Your task to perform on an android device: Find coffee shops on Maps Image 0: 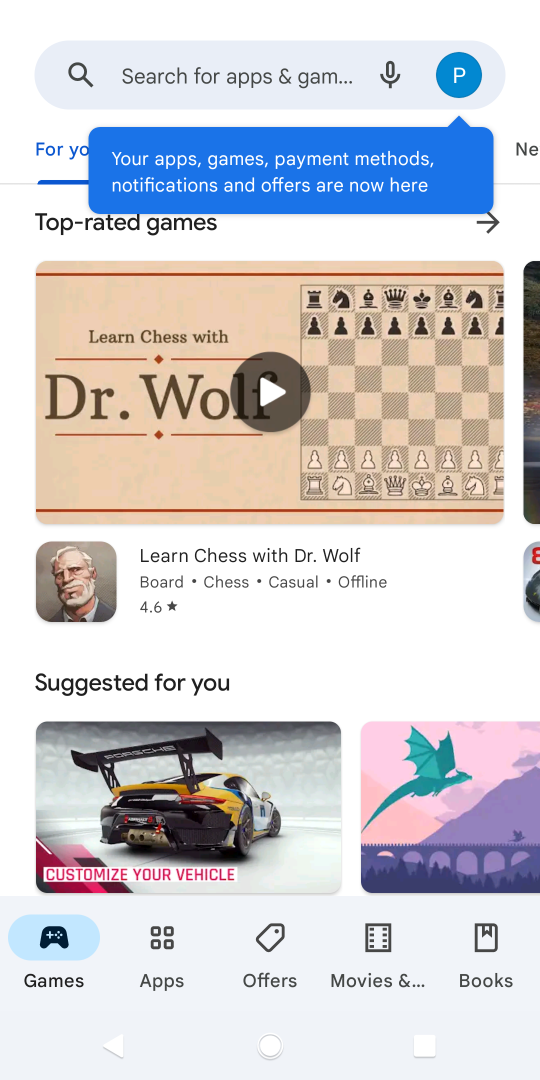
Step 0: drag from (137, 571) to (135, 388)
Your task to perform on an android device: Find coffee shops on Maps Image 1: 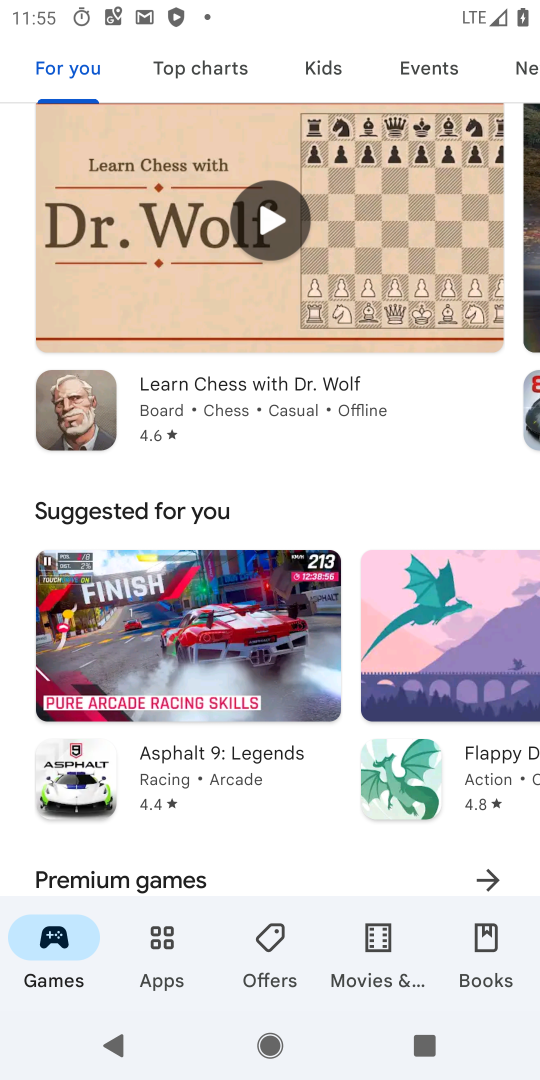
Step 1: press home button
Your task to perform on an android device: Find coffee shops on Maps Image 2: 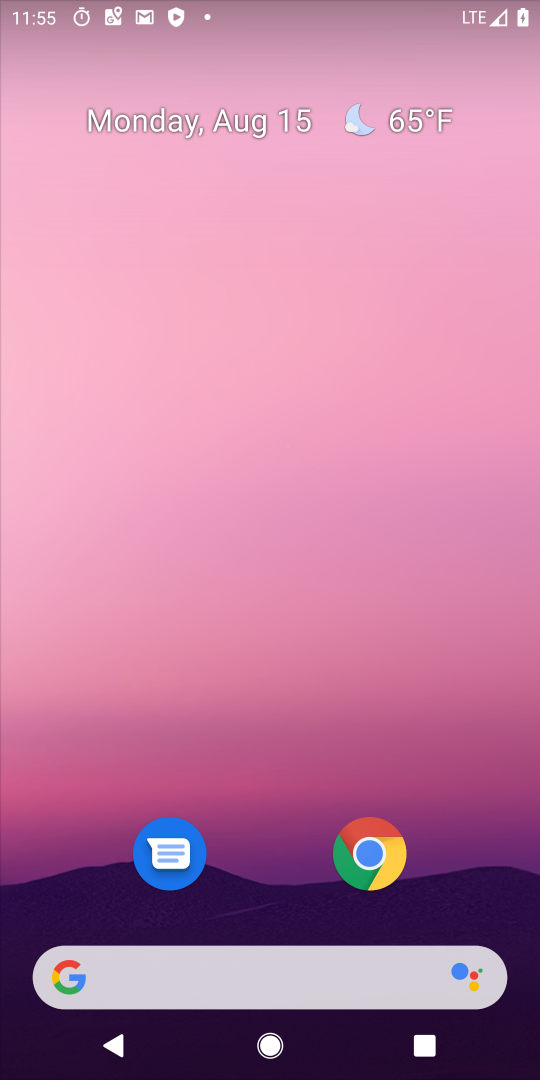
Step 2: drag from (352, 946) to (245, 255)
Your task to perform on an android device: Find coffee shops on Maps Image 3: 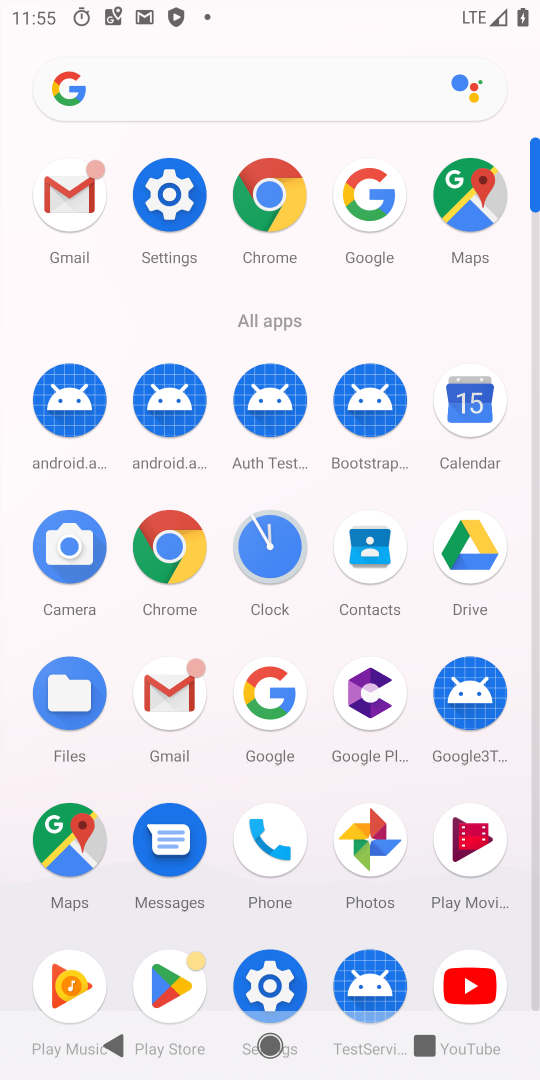
Step 3: click (47, 812)
Your task to perform on an android device: Find coffee shops on Maps Image 4: 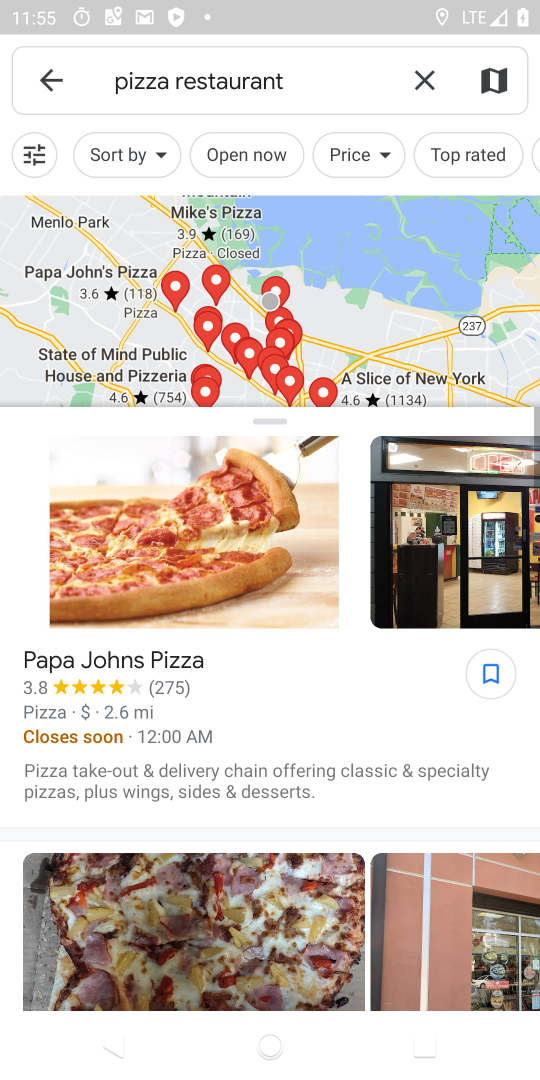
Step 4: click (423, 81)
Your task to perform on an android device: Find coffee shops on Maps Image 5: 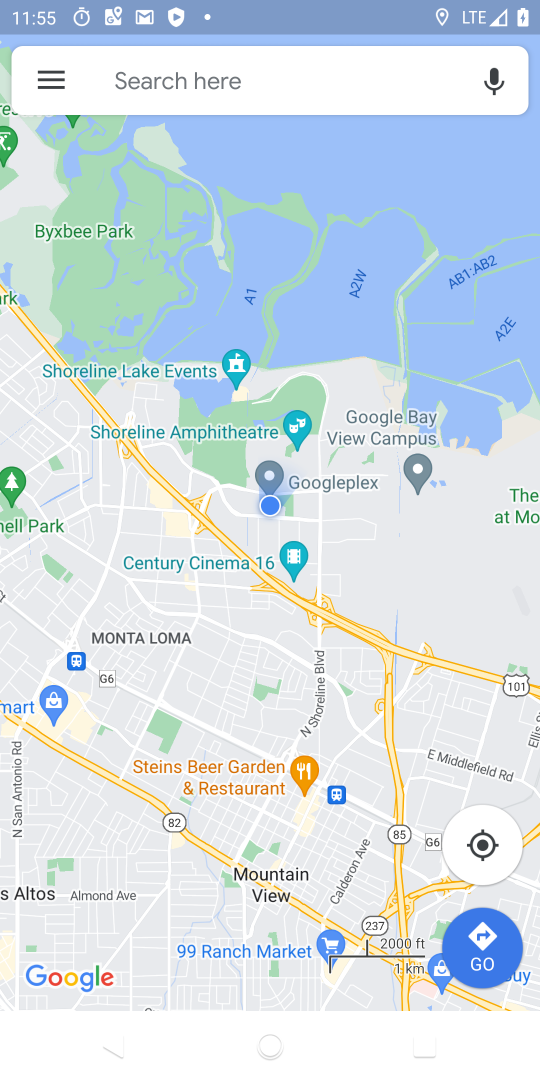
Step 5: click (264, 83)
Your task to perform on an android device: Find coffee shops on Maps Image 6: 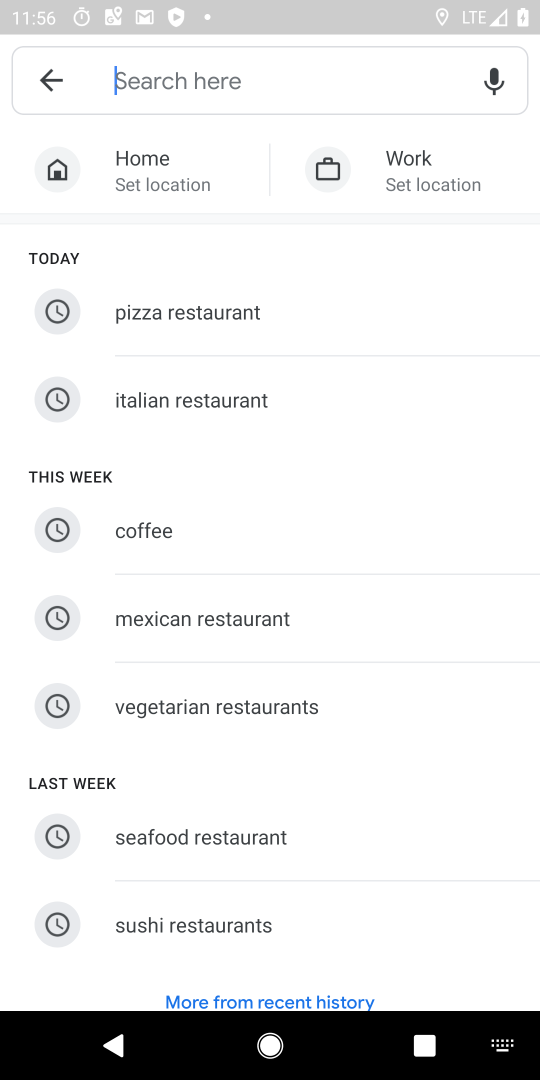
Step 6: click (166, 524)
Your task to perform on an android device: Find coffee shops on Maps Image 7: 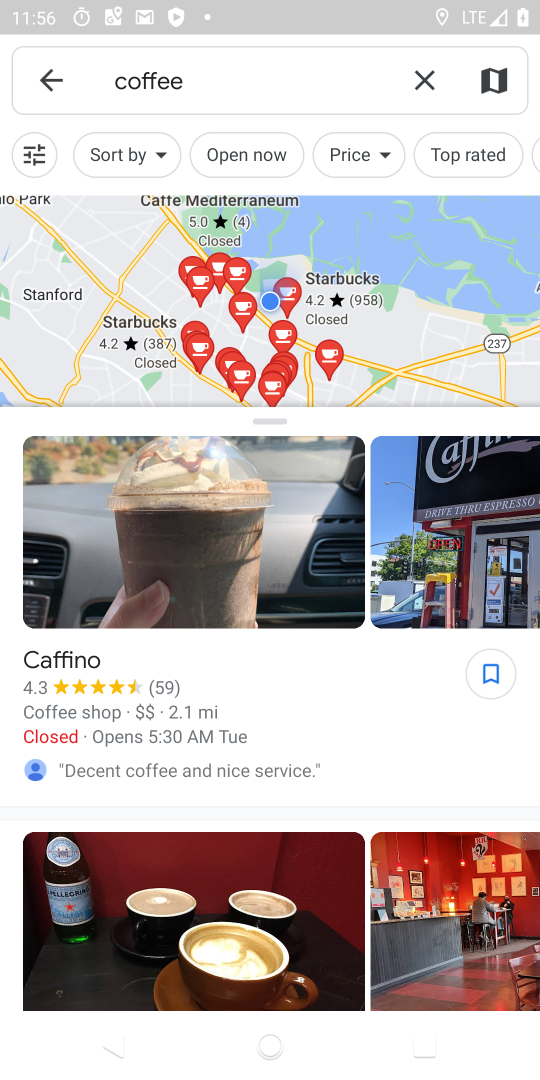
Step 7: task complete